Your task to perform on an android device: Go to battery settings Image 0: 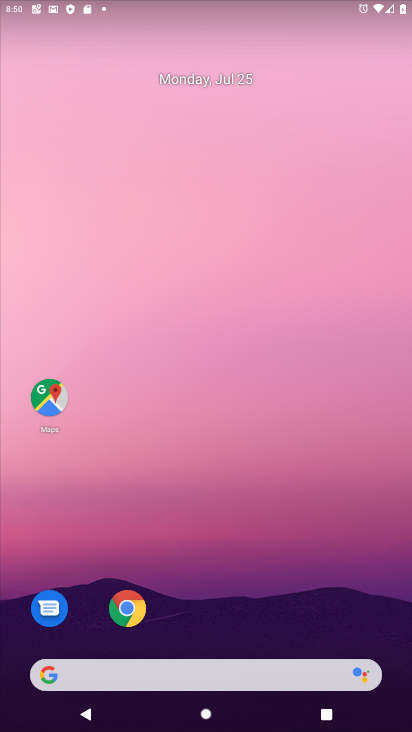
Step 0: drag from (171, 707) to (176, 317)
Your task to perform on an android device: Go to battery settings Image 1: 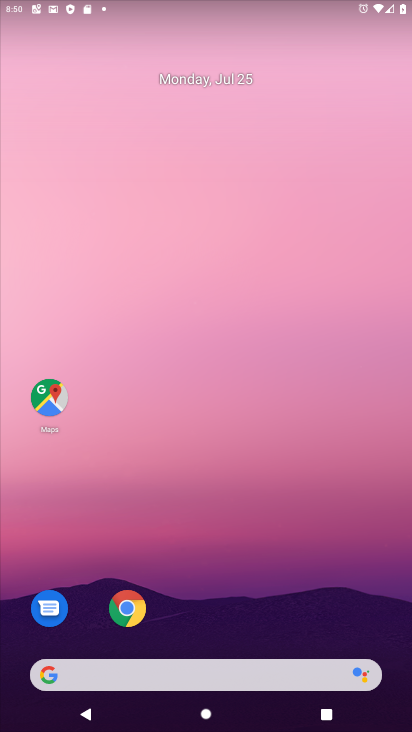
Step 1: drag from (257, 714) to (228, 4)
Your task to perform on an android device: Go to battery settings Image 2: 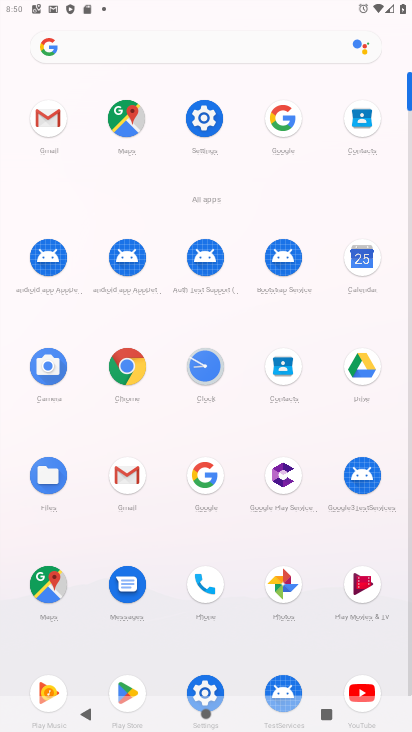
Step 2: click (214, 125)
Your task to perform on an android device: Go to battery settings Image 3: 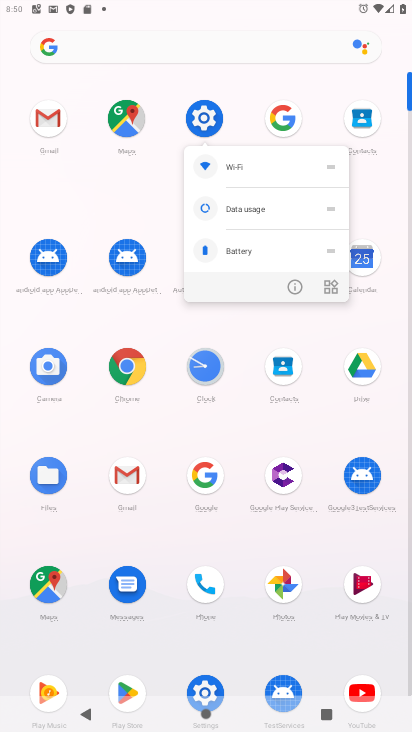
Step 3: click (211, 122)
Your task to perform on an android device: Go to battery settings Image 4: 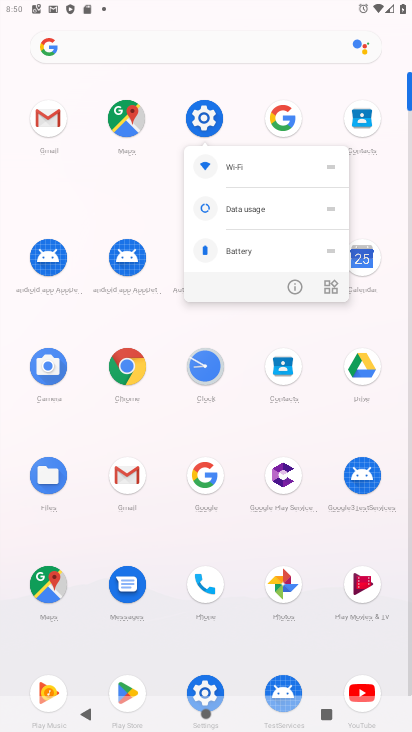
Step 4: click (211, 122)
Your task to perform on an android device: Go to battery settings Image 5: 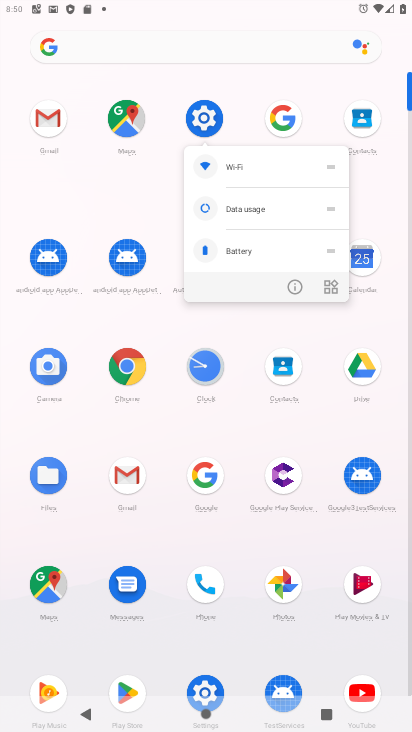
Step 5: click (211, 122)
Your task to perform on an android device: Go to battery settings Image 6: 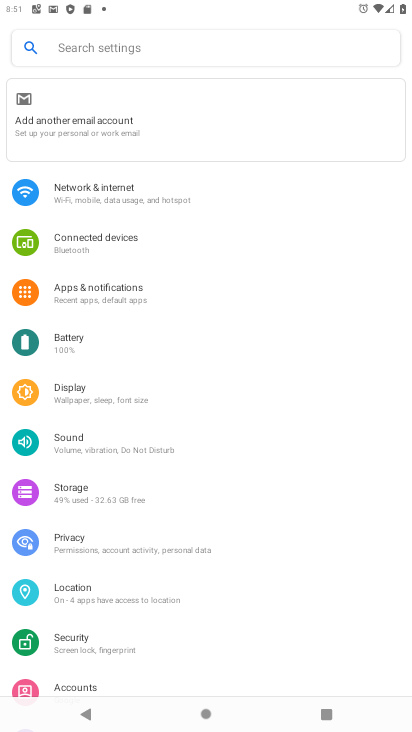
Step 6: click (87, 337)
Your task to perform on an android device: Go to battery settings Image 7: 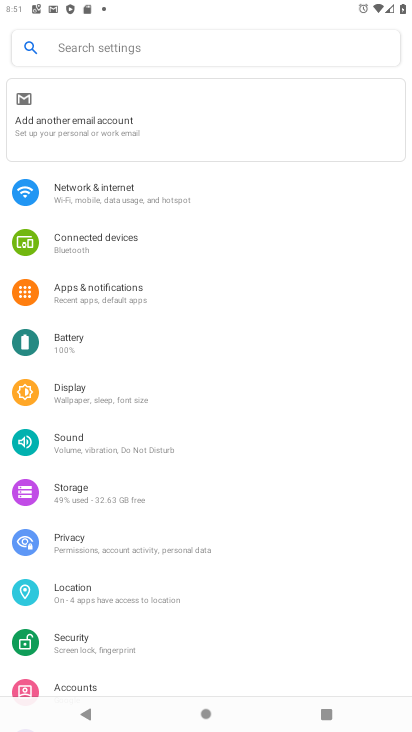
Step 7: click (87, 337)
Your task to perform on an android device: Go to battery settings Image 8: 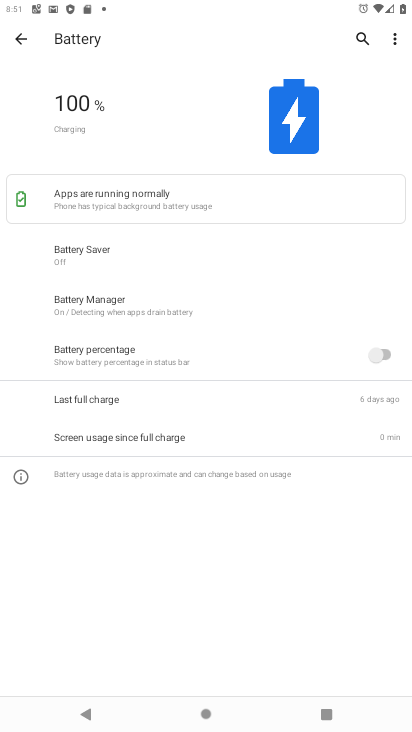
Step 8: task complete